Your task to perform on an android device: turn off translation in the chrome app Image 0: 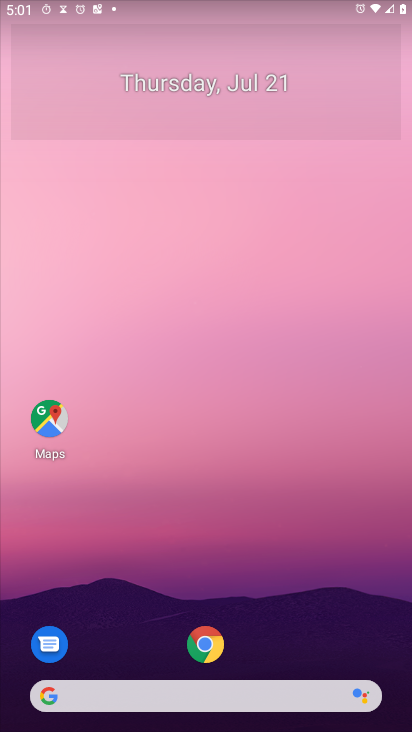
Step 0: press home button
Your task to perform on an android device: turn off translation in the chrome app Image 1: 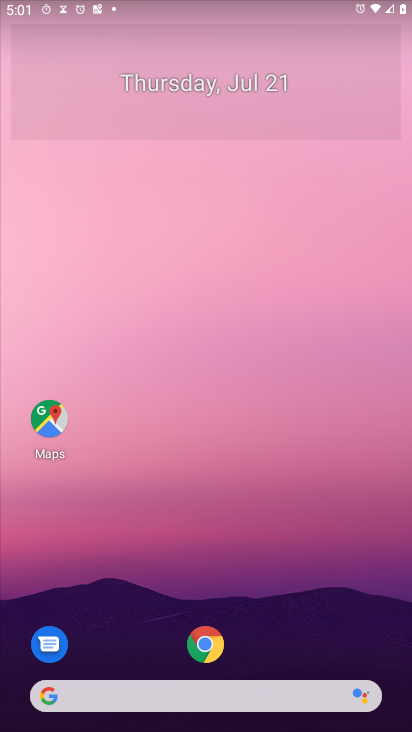
Step 1: click (206, 640)
Your task to perform on an android device: turn off translation in the chrome app Image 2: 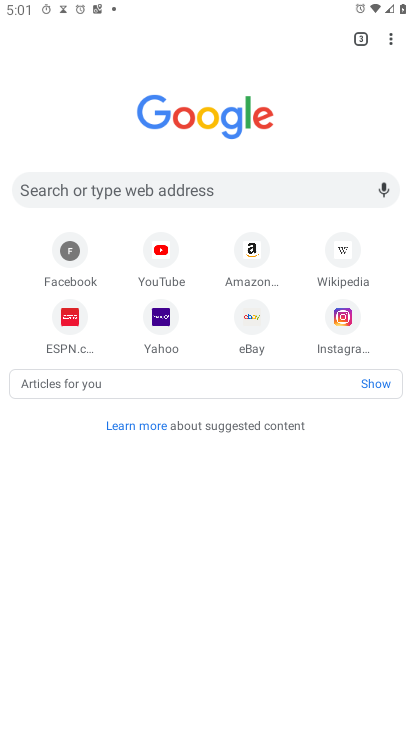
Step 2: drag from (391, 29) to (286, 357)
Your task to perform on an android device: turn off translation in the chrome app Image 3: 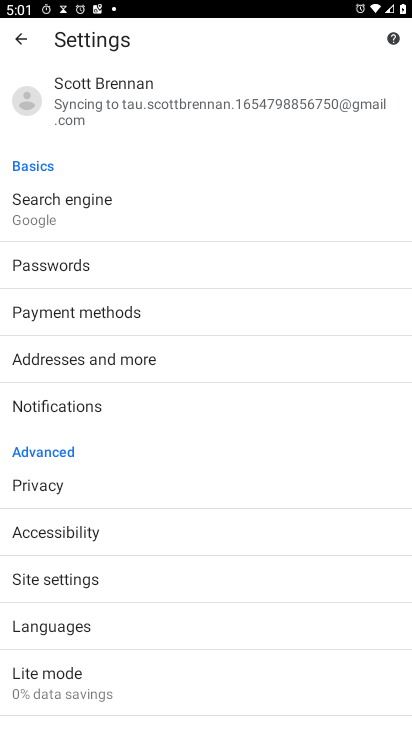
Step 3: click (80, 634)
Your task to perform on an android device: turn off translation in the chrome app Image 4: 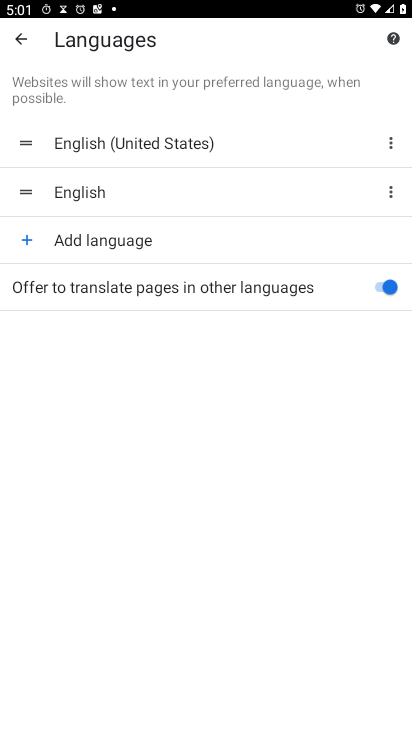
Step 4: click (386, 289)
Your task to perform on an android device: turn off translation in the chrome app Image 5: 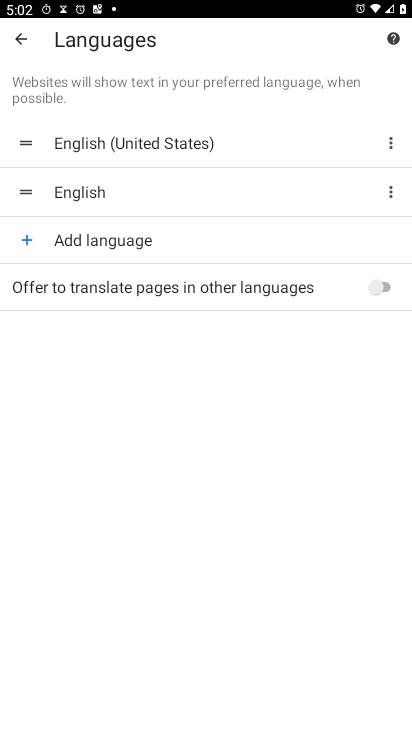
Step 5: task complete